Your task to perform on an android device: Open Youtube and go to "Your channel" Image 0: 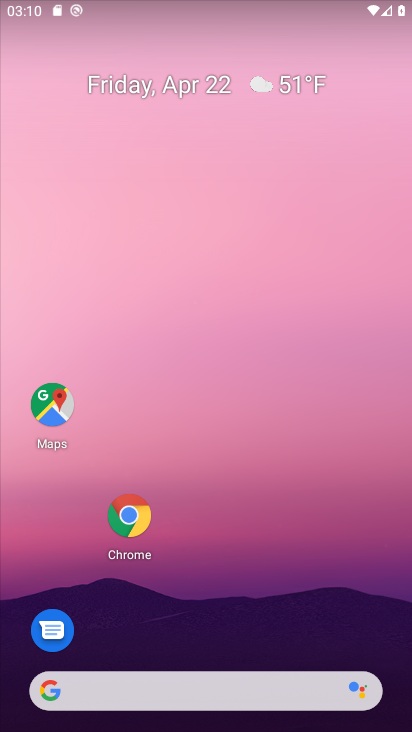
Step 0: drag from (389, 524) to (386, 164)
Your task to perform on an android device: Open Youtube and go to "Your channel" Image 1: 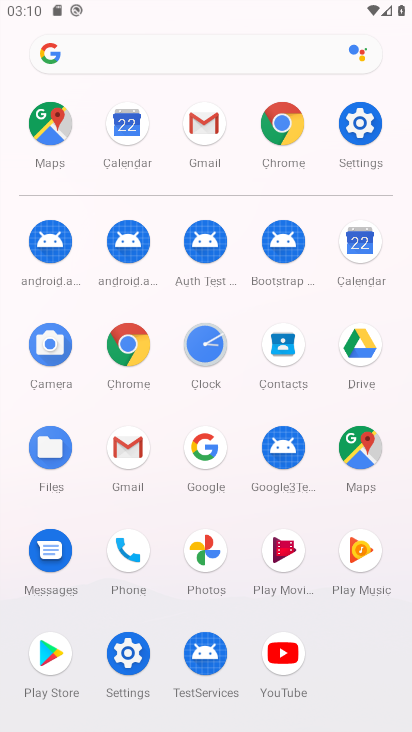
Step 1: click (276, 654)
Your task to perform on an android device: Open Youtube and go to "Your channel" Image 2: 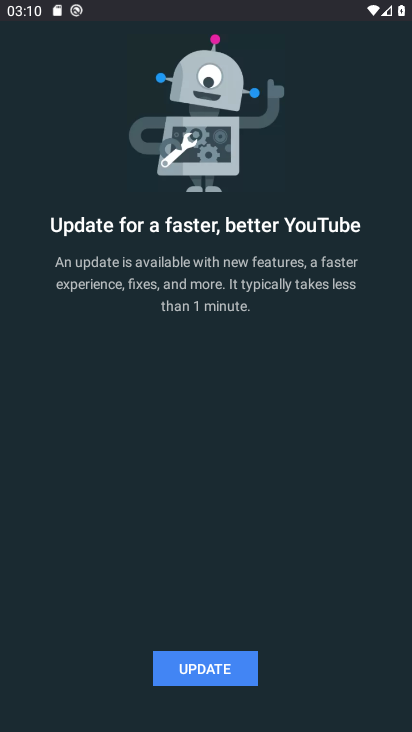
Step 2: press back button
Your task to perform on an android device: Open Youtube and go to "Your channel" Image 3: 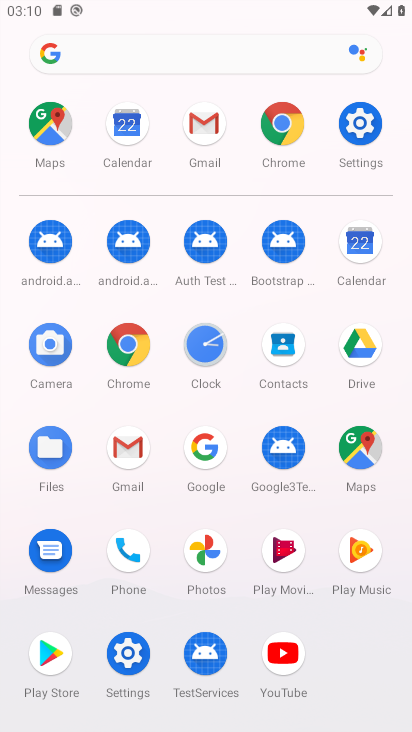
Step 3: click (283, 650)
Your task to perform on an android device: Open Youtube and go to "Your channel" Image 4: 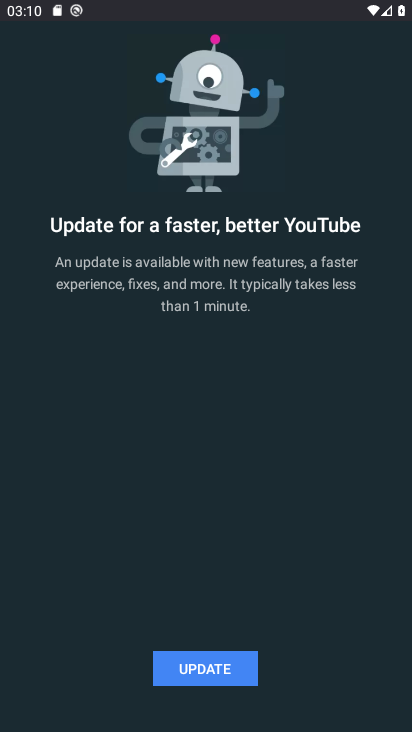
Step 4: click (208, 672)
Your task to perform on an android device: Open Youtube and go to "Your channel" Image 5: 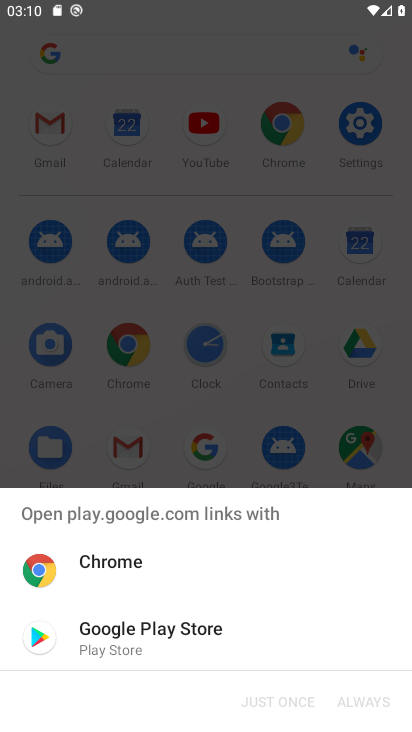
Step 5: click (101, 639)
Your task to perform on an android device: Open Youtube and go to "Your channel" Image 6: 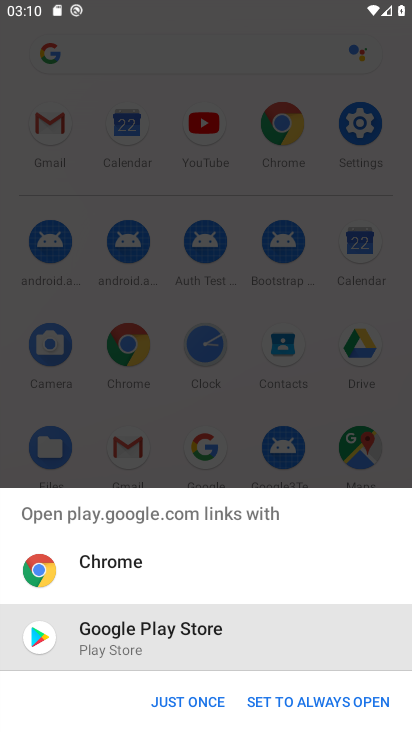
Step 6: click (169, 698)
Your task to perform on an android device: Open Youtube and go to "Your channel" Image 7: 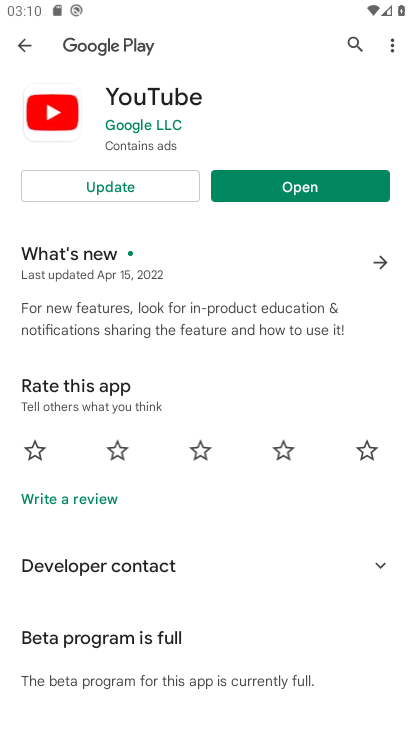
Step 7: click (158, 186)
Your task to perform on an android device: Open Youtube and go to "Your channel" Image 8: 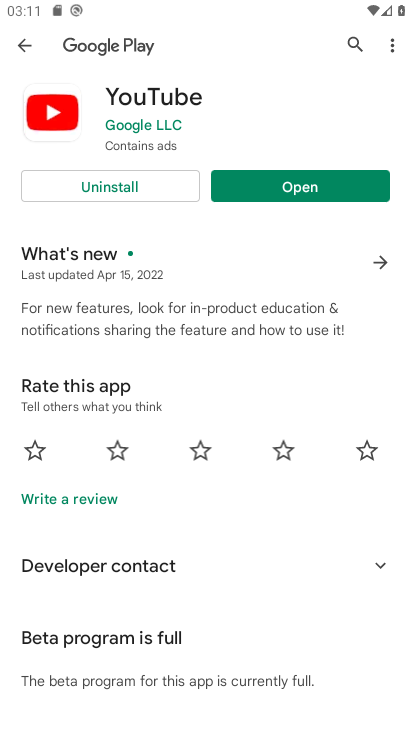
Step 8: click (269, 177)
Your task to perform on an android device: Open Youtube and go to "Your channel" Image 9: 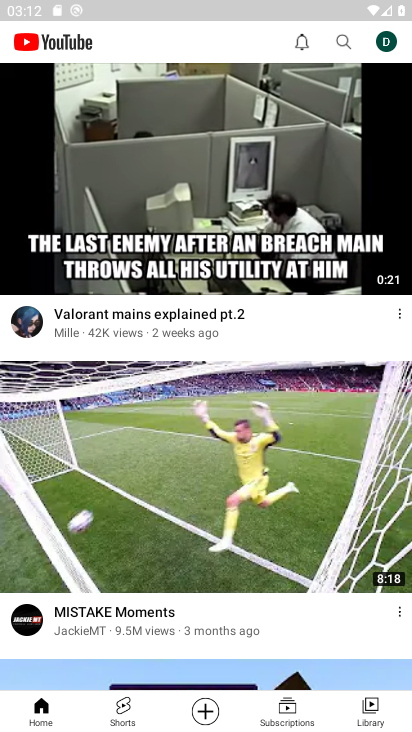
Step 9: click (378, 42)
Your task to perform on an android device: Open Youtube and go to "Your channel" Image 10: 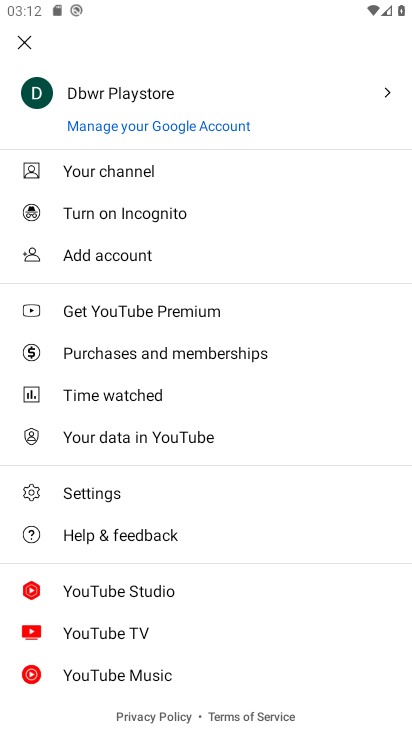
Step 10: click (105, 159)
Your task to perform on an android device: Open Youtube and go to "Your channel" Image 11: 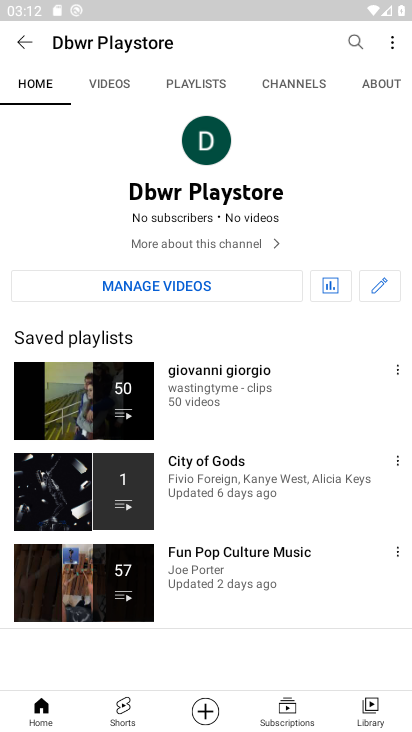
Step 11: task complete